Your task to perform on an android device: change the clock display to show seconds Image 0: 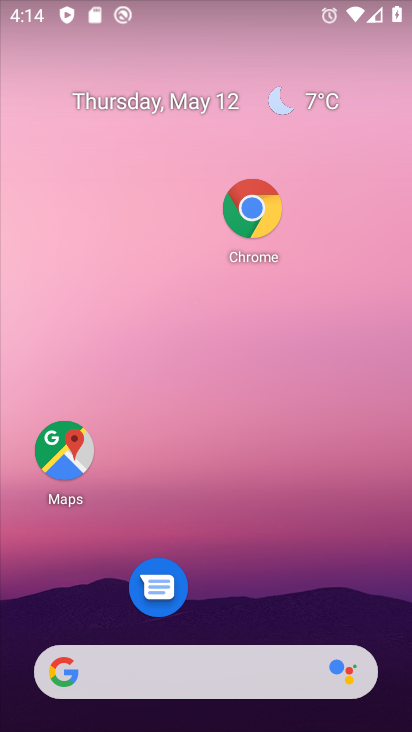
Step 0: drag from (210, 618) to (249, 113)
Your task to perform on an android device: change the clock display to show seconds Image 1: 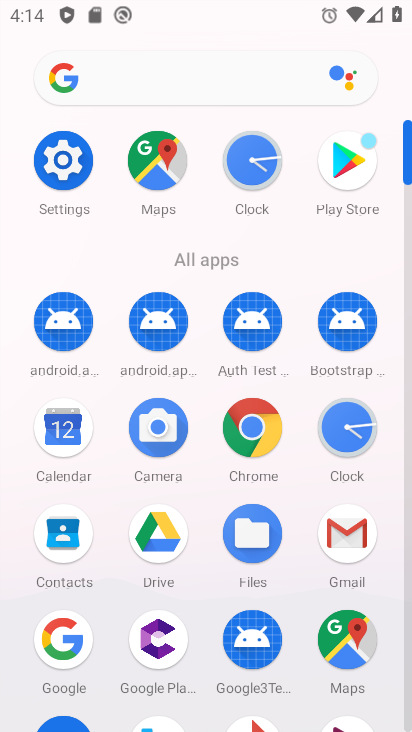
Step 1: click (345, 453)
Your task to perform on an android device: change the clock display to show seconds Image 2: 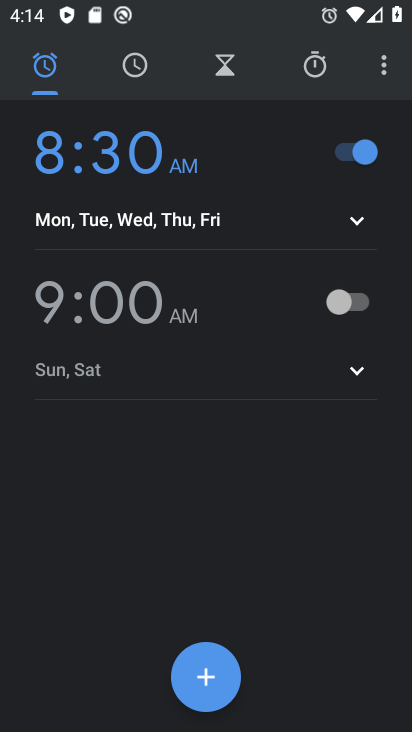
Step 2: click (383, 62)
Your task to perform on an android device: change the clock display to show seconds Image 3: 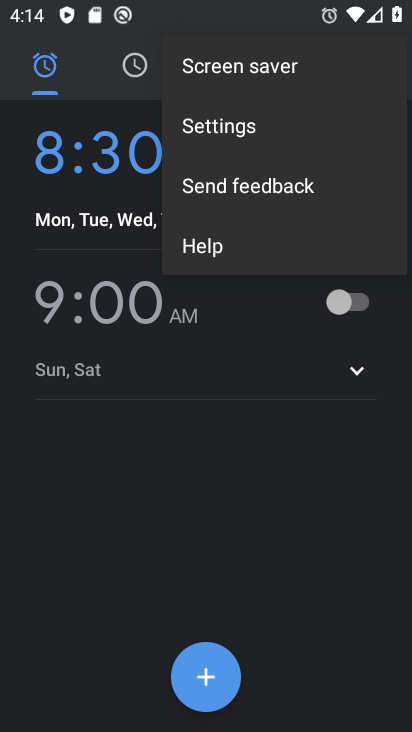
Step 3: click (237, 149)
Your task to perform on an android device: change the clock display to show seconds Image 4: 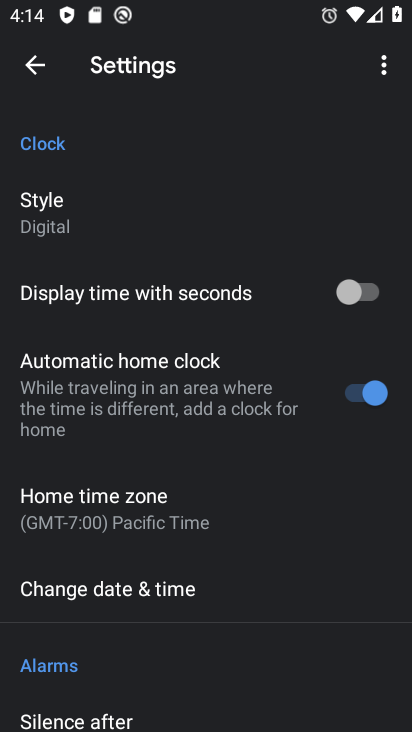
Step 4: click (377, 296)
Your task to perform on an android device: change the clock display to show seconds Image 5: 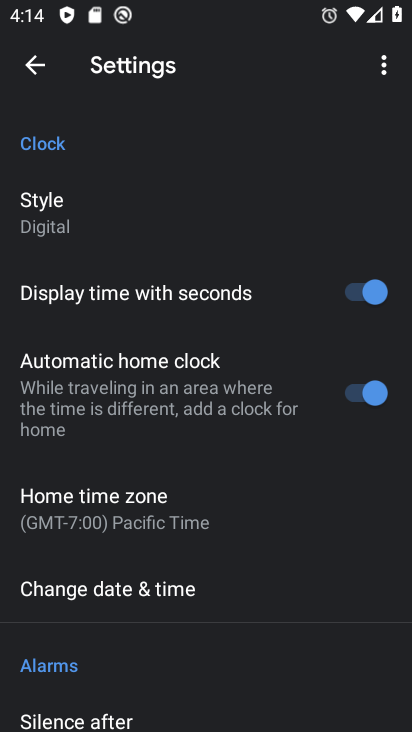
Step 5: task complete